Your task to perform on an android device: Open calendar and show me the fourth week of next month Image 0: 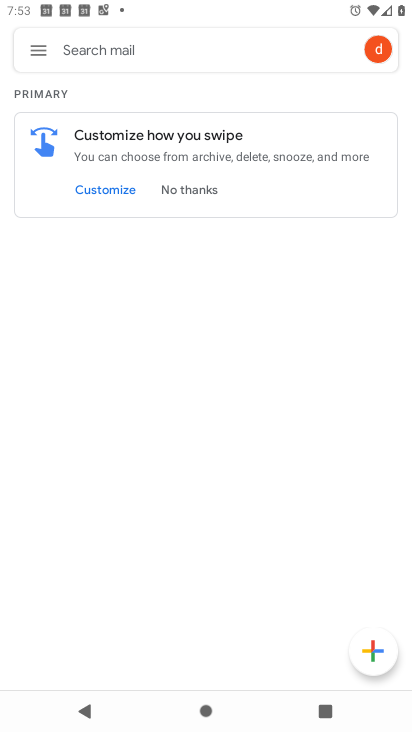
Step 0: press home button
Your task to perform on an android device: Open calendar and show me the fourth week of next month Image 1: 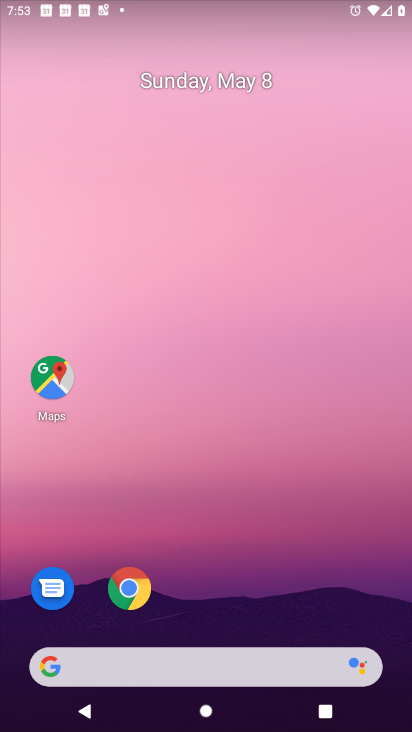
Step 1: drag from (121, 674) to (351, 91)
Your task to perform on an android device: Open calendar and show me the fourth week of next month Image 2: 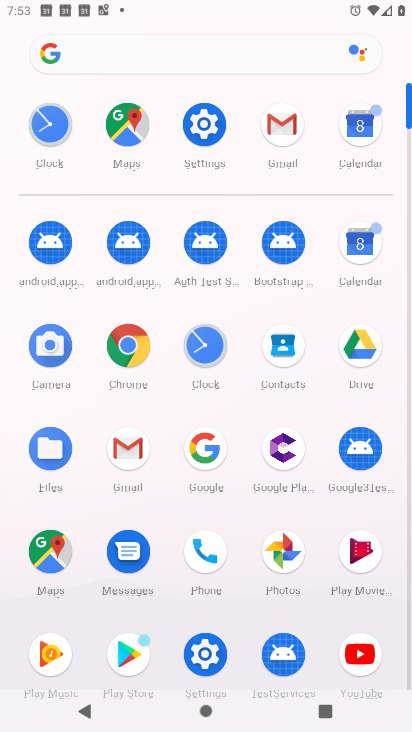
Step 2: click (356, 252)
Your task to perform on an android device: Open calendar and show me the fourth week of next month Image 3: 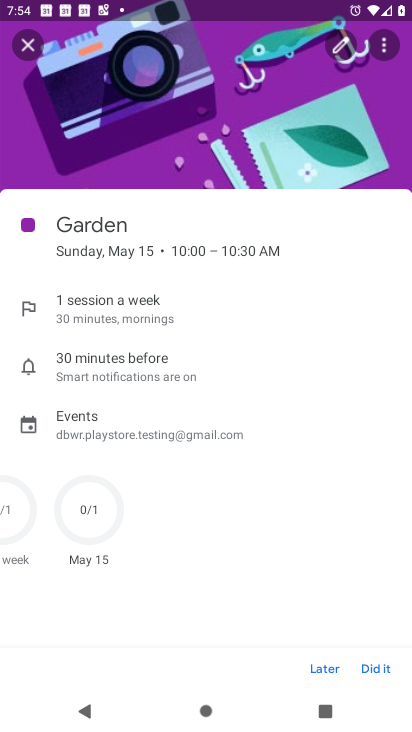
Step 3: click (20, 42)
Your task to perform on an android device: Open calendar and show me the fourth week of next month Image 4: 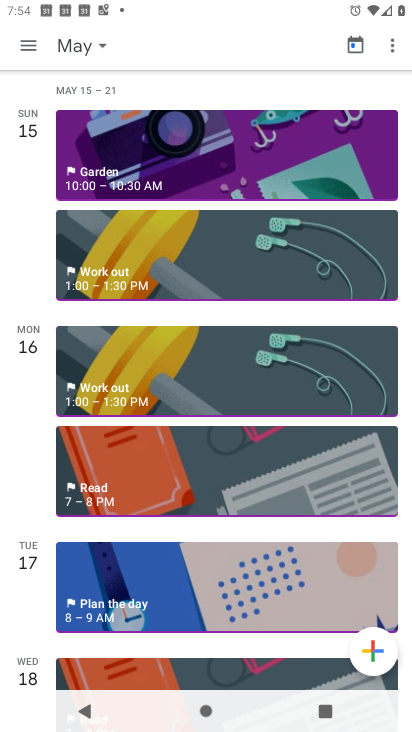
Step 4: click (72, 42)
Your task to perform on an android device: Open calendar and show me the fourth week of next month Image 5: 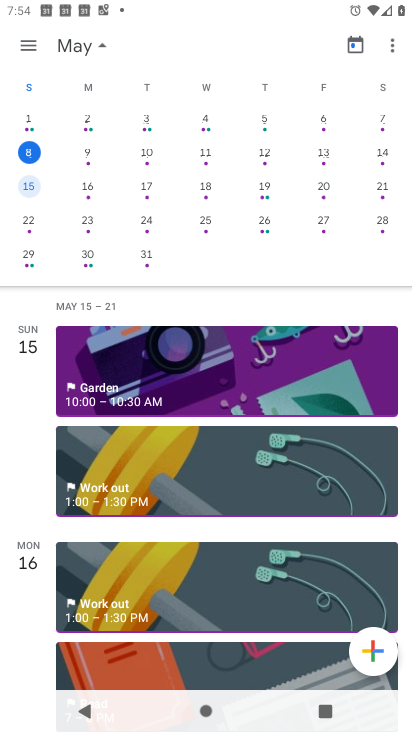
Step 5: drag from (357, 210) to (6, 263)
Your task to perform on an android device: Open calendar and show me the fourth week of next month Image 6: 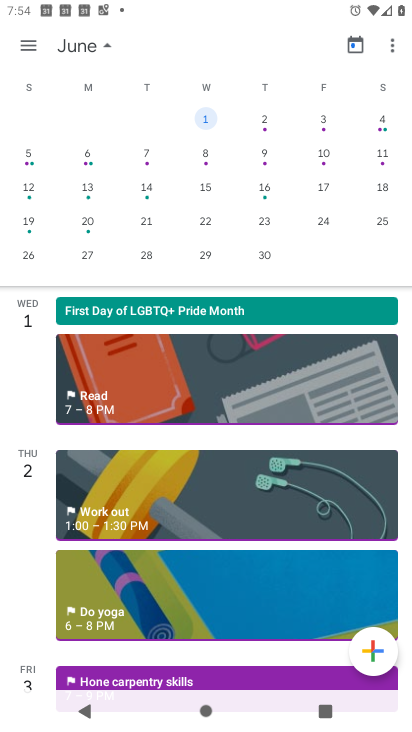
Step 6: click (29, 223)
Your task to perform on an android device: Open calendar and show me the fourth week of next month Image 7: 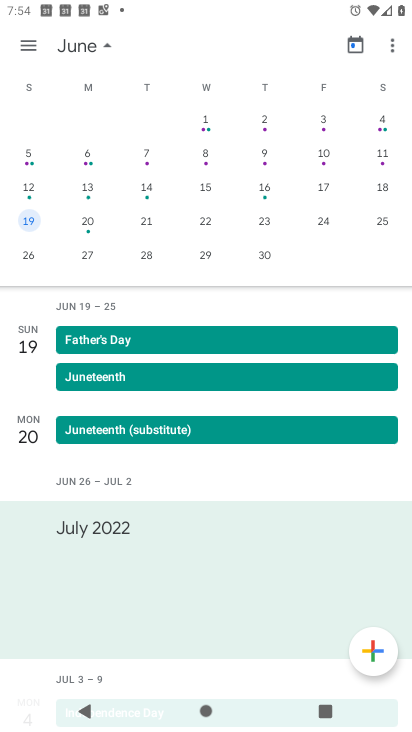
Step 7: click (27, 48)
Your task to perform on an android device: Open calendar and show me the fourth week of next month Image 8: 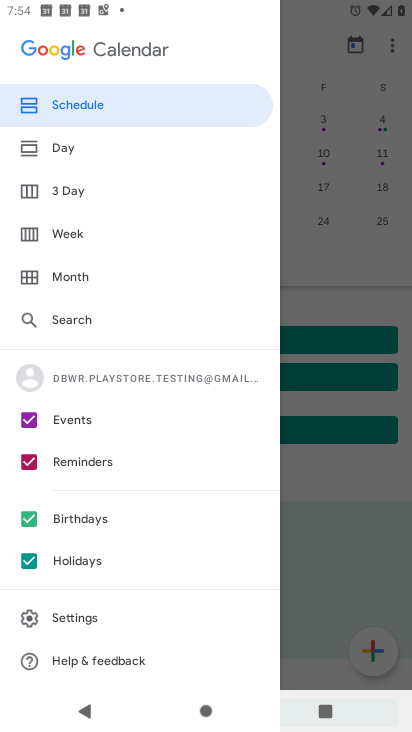
Step 8: click (66, 239)
Your task to perform on an android device: Open calendar and show me the fourth week of next month Image 9: 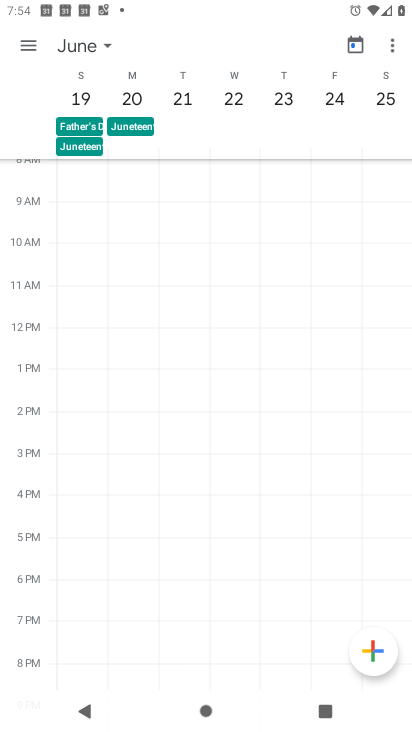
Step 9: task complete